Your task to perform on an android device: Search for handmade jewelry on Etsy. Image 0: 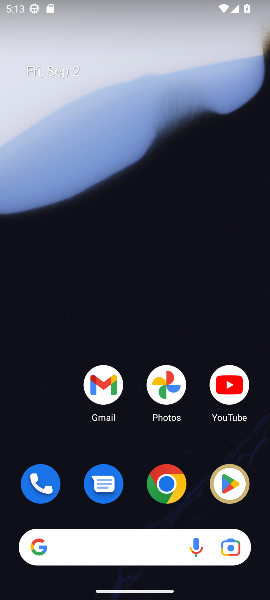
Step 0: click (168, 485)
Your task to perform on an android device: Search for handmade jewelry on Etsy. Image 1: 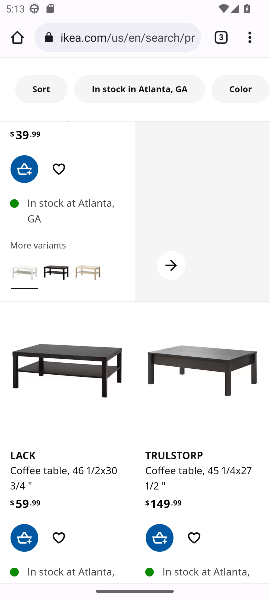
Step 1: click (160, 33)
Your task to perform on an android device: Search for handmade jewelry on Etsy. Image 2: 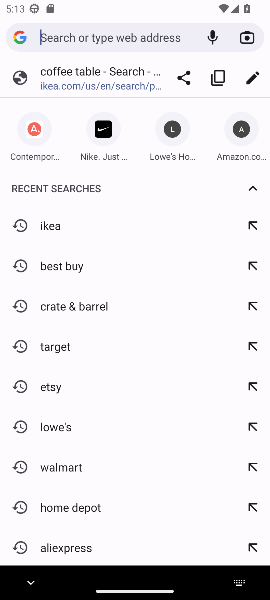
Step 2: click (44, 391)
Your task to perform on an android device: Search for handmade jewelry on Etsy. Image 3: 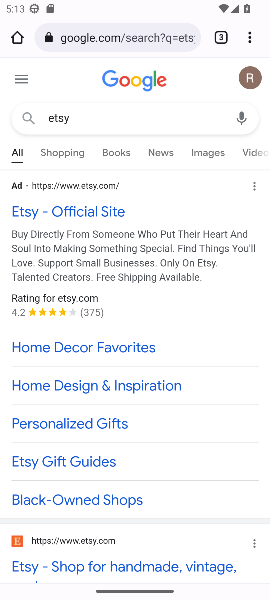
Step 3: click (102, 214)
Your task to perform on an android device: Search for handmade jewelry on Etsy. Image 4: 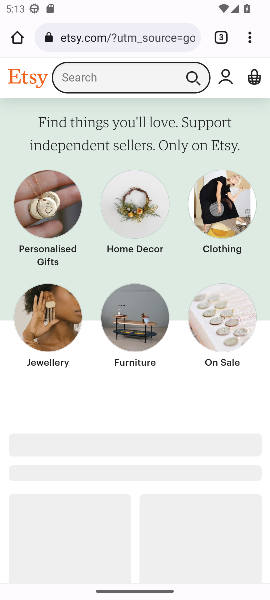
Step 4: click (134, 74)
Your task to perform on an android device: Search for handmade jewelry on Etsy. Image 5: 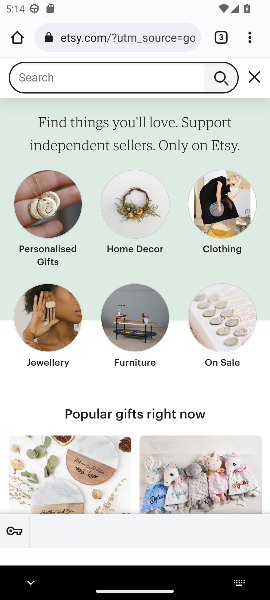
Step 5: type "handmade jewelry"
Your task to perform on an android device: Search for handmade jewelry on Etsy. Image 6: 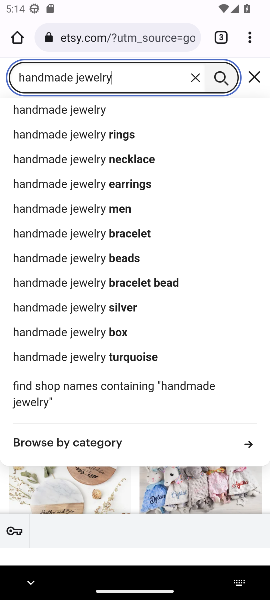
Step 6: click (97, 110)
Your task to perform on an android device: Search for handmade jewelry on Etsy. Image 7: 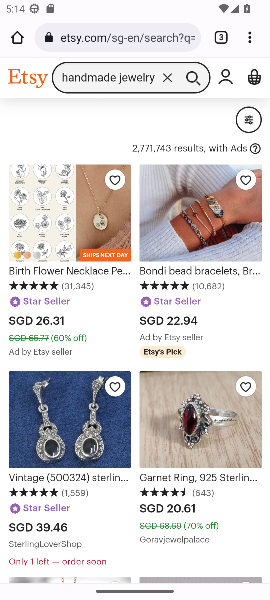
Step 7: drag from (170, 355) to (192, 321)
Your task to perform on an android device: Search for handmade jewelry on Etsy. Image 8: 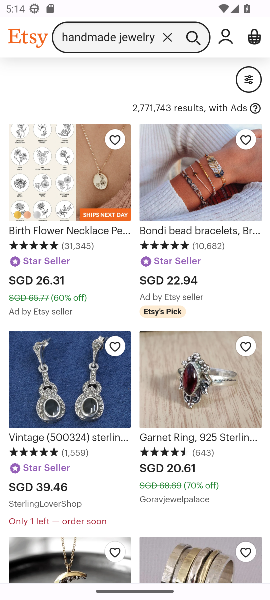
Step 8: drag from (113, 487) to (223, 254)
Your task to perform on an android device: Search for handmade jewelry on Etsy. Image 9: 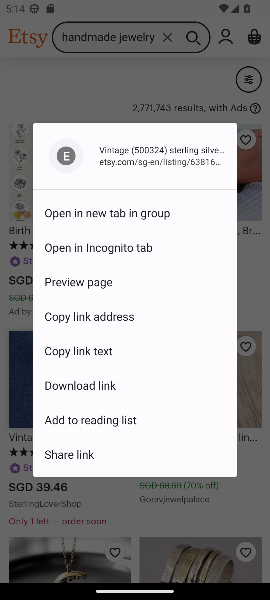
Step 9: click (258, 506)
Your task to perform on an android device: Search for handmade jewelry on Etsy. Image 10: 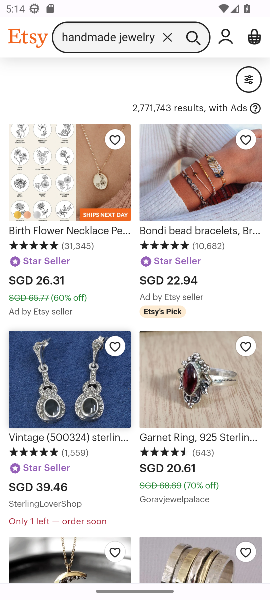
Step 10: task complete